Your task to perform on an android device: Go to settings Image 0: 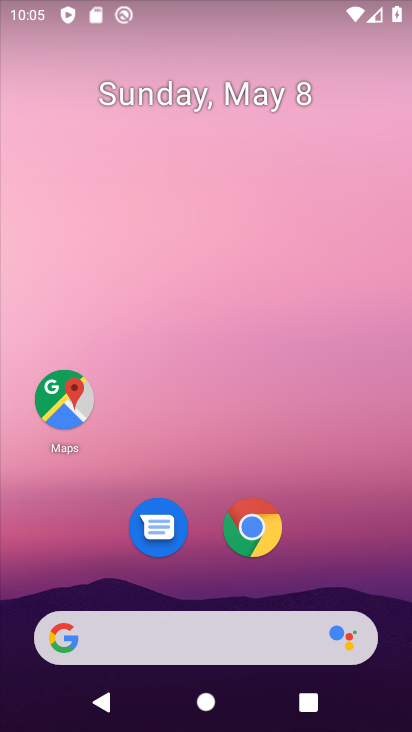
Step 0: drag from (329, 381) to (309, 150)
Your task to perform on an android device: Go to settings Image 1: 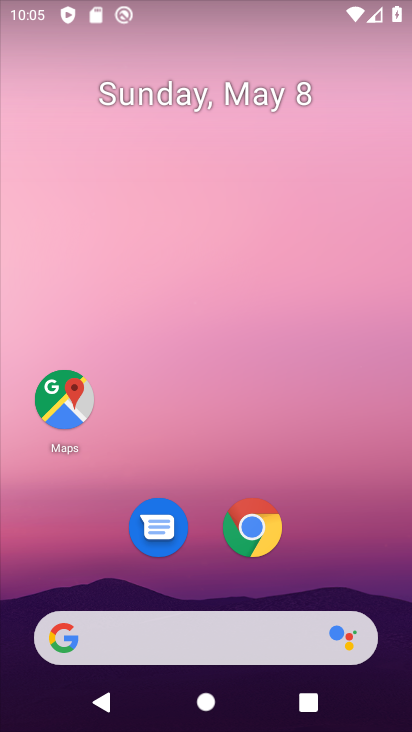
Step 1: drag from (337, 499) to (324, 6)
Your task to perform on an android device: Go to settings Image 2: 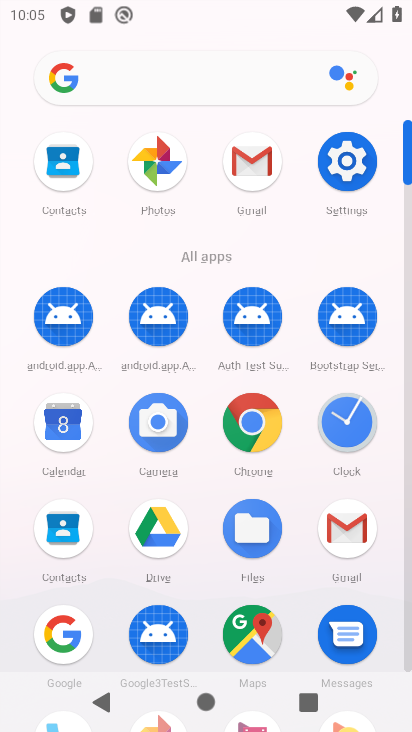
Step 2: click (333, 180)
Your task to perform on an android device: Go to settings Image 3: 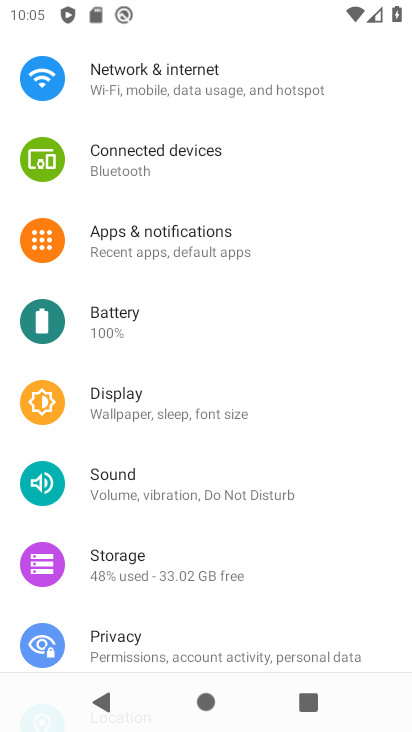
Step 3: task complete